Your task to perform on an android device: Open Android settings Image 0: 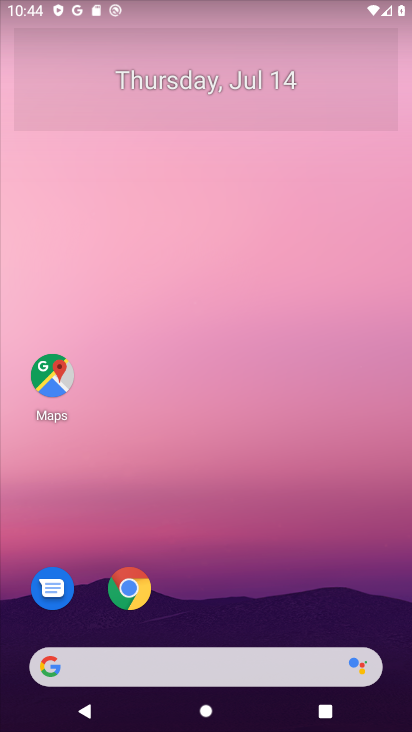
Step 0: drag from (188, 573) to (202, 128)
Your task to perform on an android device: Open Android settings Image 1: 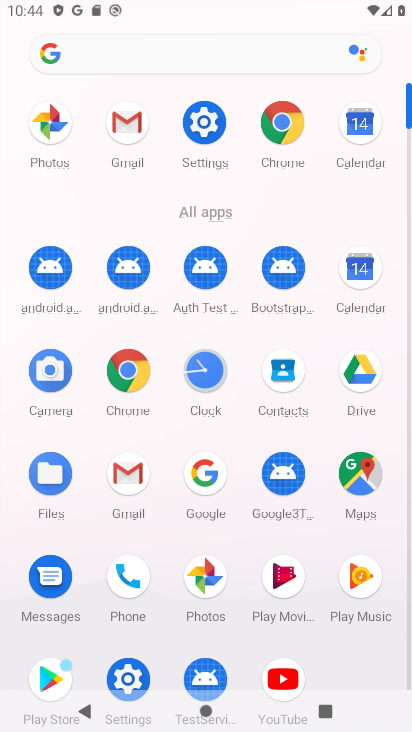
Step 1: click (140, 671)
Your task to perform on an android device: Open Android settings Image 2: 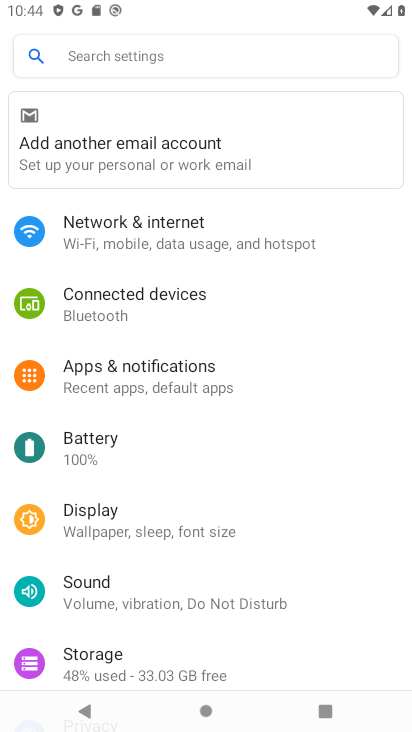
Step 2: drag from (155, 617) to (220, 264)
Your task to perform on an android device: Open Android settings Image 3: 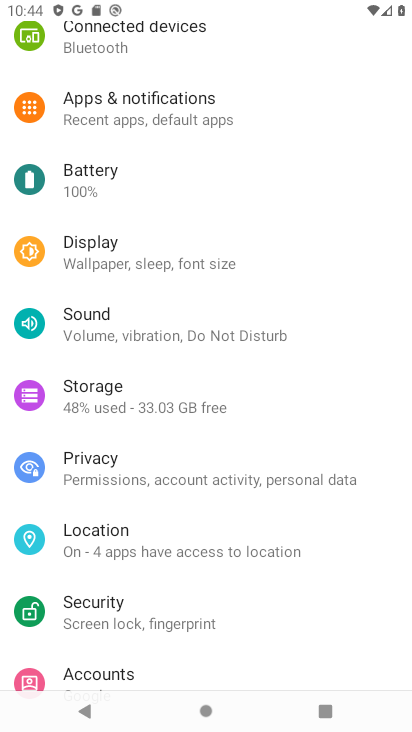
Step 3: drag from (152, 571) to (374, 132)
Your task to perform on an android device: Open Android settings Image 4: 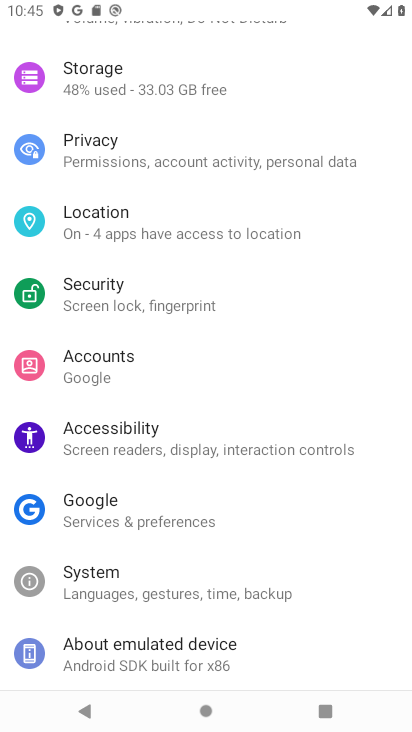
Step 4: click (67, 670)
Your task to perform on an android device: Open Android settings Image 5: 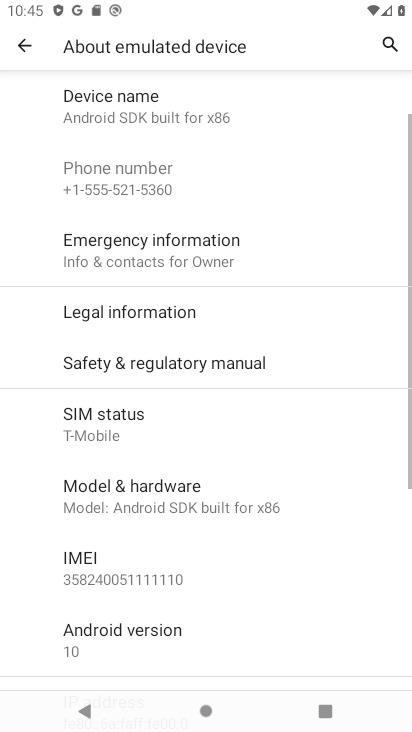
Step 5: click (131, 631)
Your task to perform on an android device: Open Android settings Image 6: 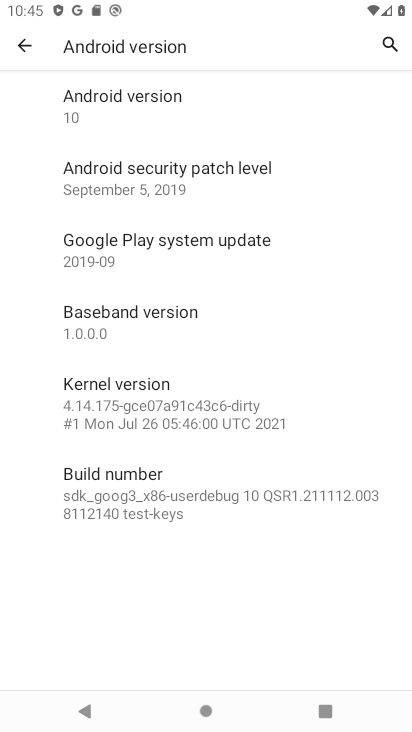
Step 6: task complete